Your task to perform on an android device: Open Google Image 0: 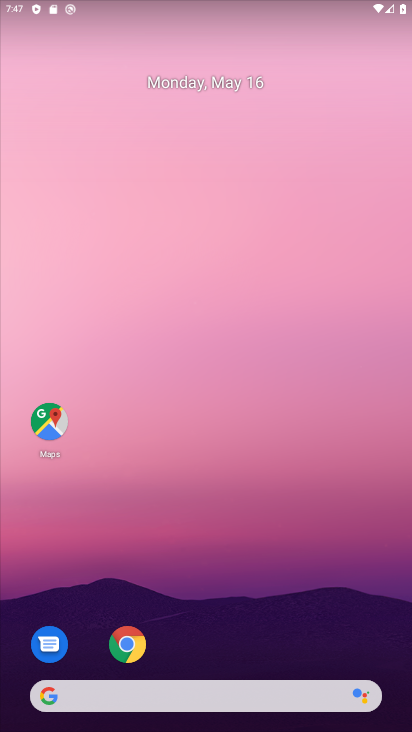
Step 0: drag from (232, 619) to (275, 87)
Your task to perform on an android device: Open Google Image 1: 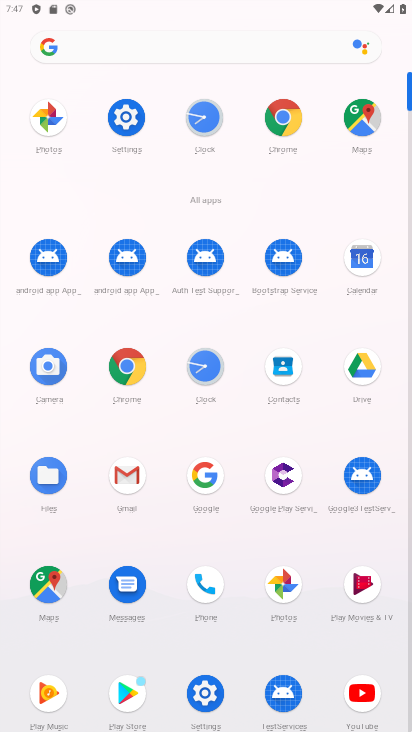
Step 1: click (203, 482)
Your task to perform on an android device: Open Google Image 2: 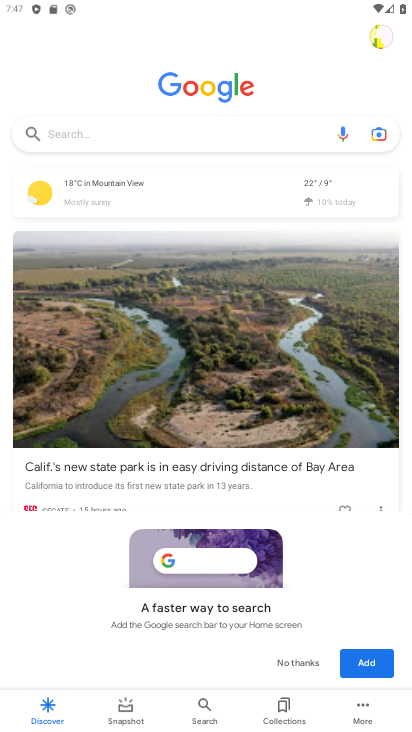
Step 2: task complete